Your task to perform on an android device: open a bookmark in the chrome app Image 0: 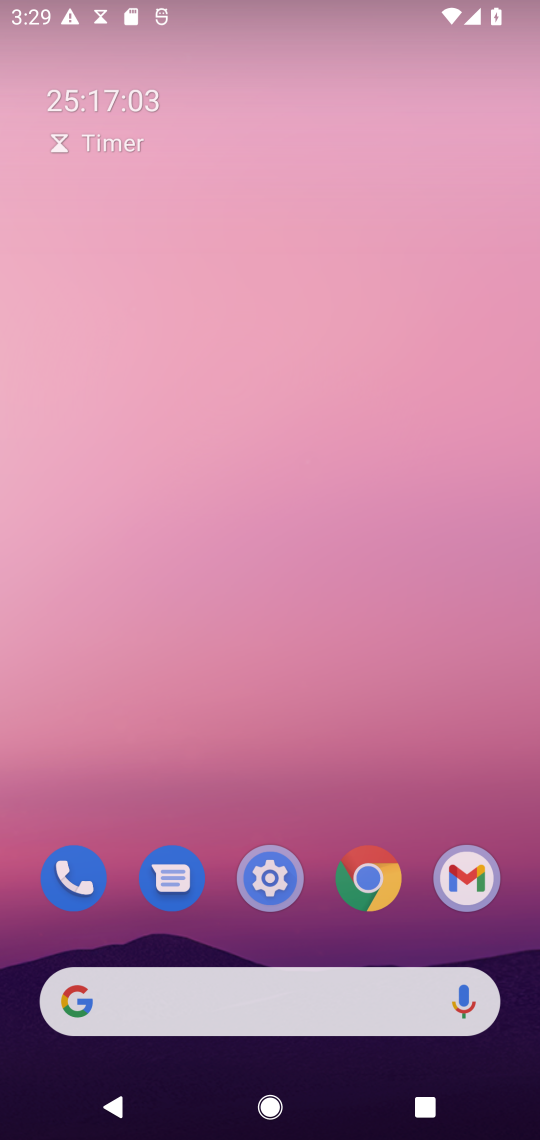
Step 0: click (408, 161)
Your task to perform on an android device: open a bookmark in the chrome app Image 1: 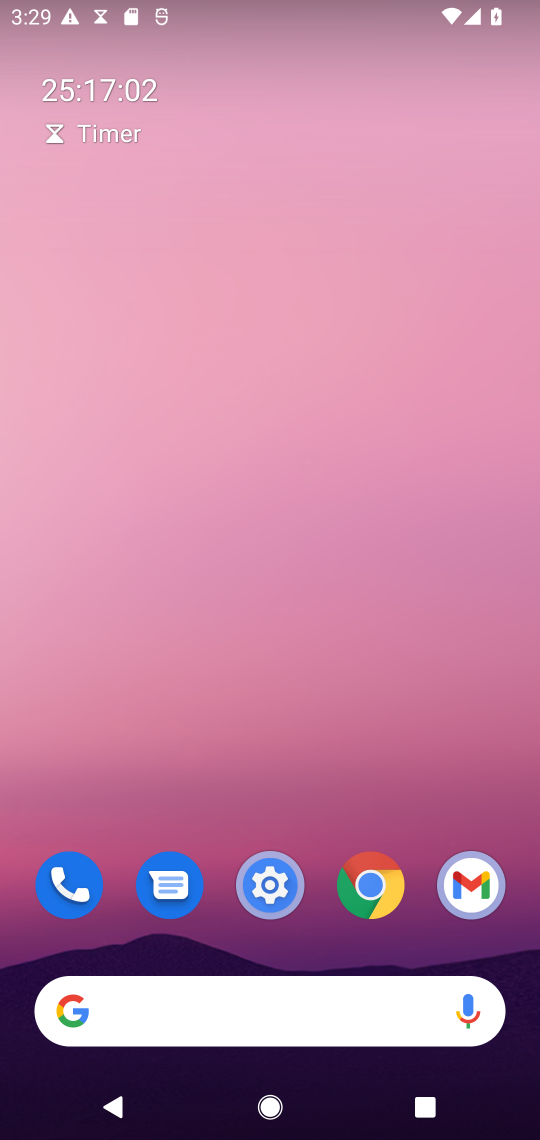
Step 1: press home button
Your task to perform on an android device: open a bookmark in the chrome app Image 2: 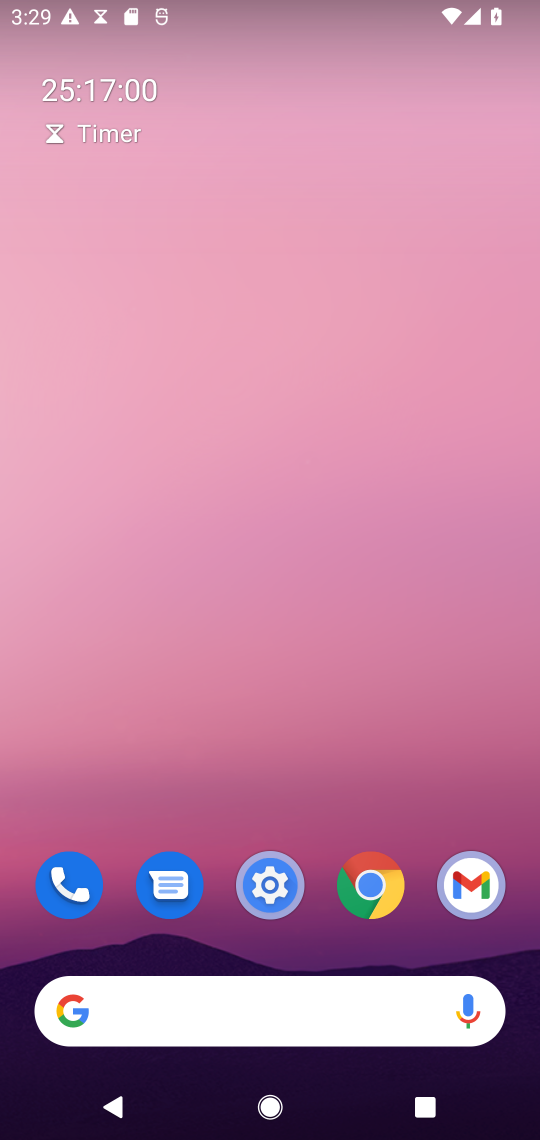
Step 2: drag from (362, 1137) to (527, 82)
Your task to perform on an android device: open a bookmark in the chrome app Image 3: 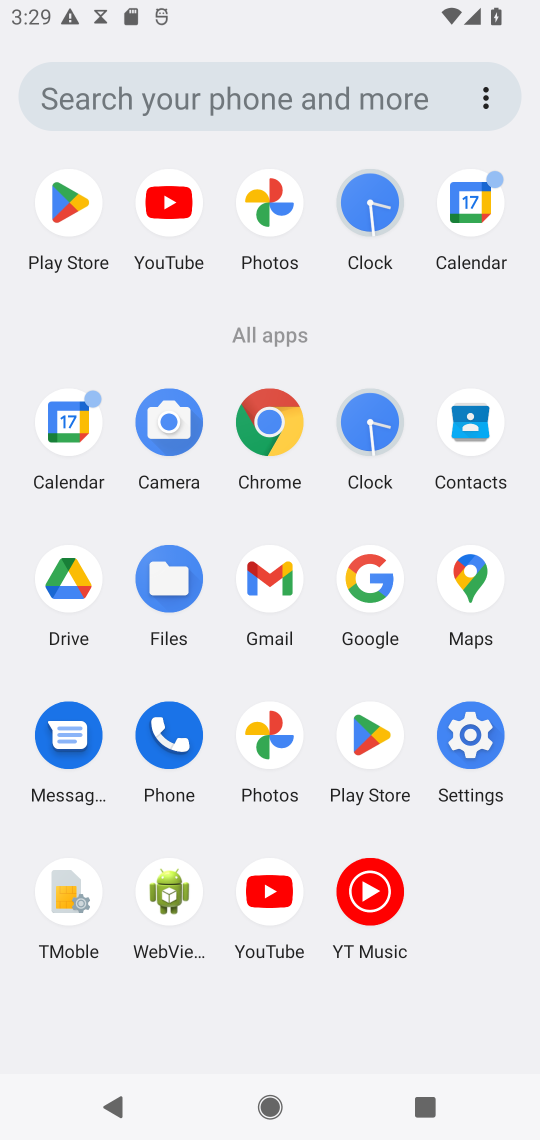
Step 3: click (287, 425)
Your task to perform on an android device: open a bookmark in the chrome app Image 4: 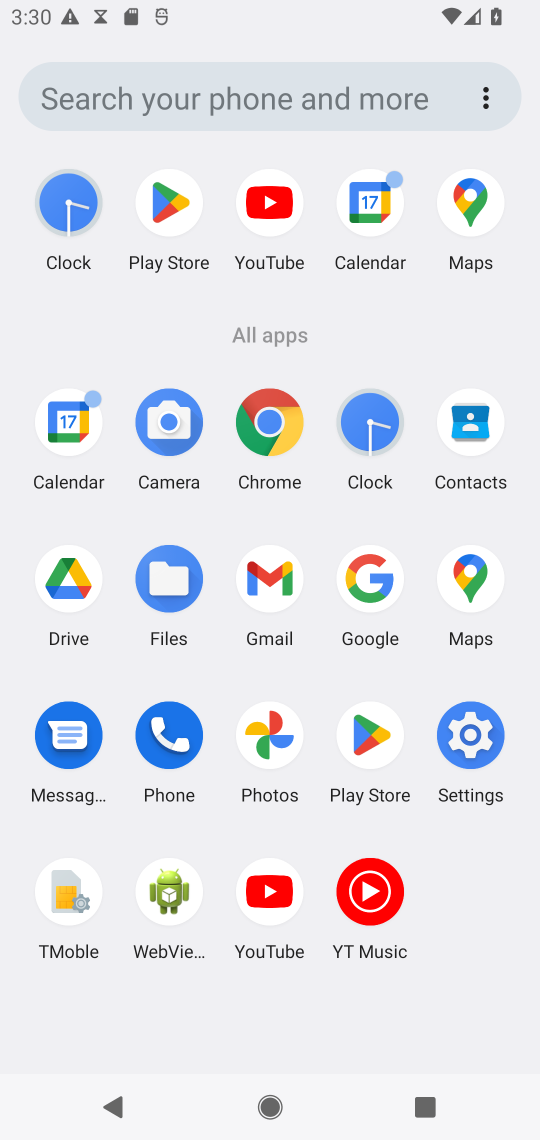
Step 4: click (285, 422)
Your task to perform on an android device: open a bookmark in the chrome app Image 5: 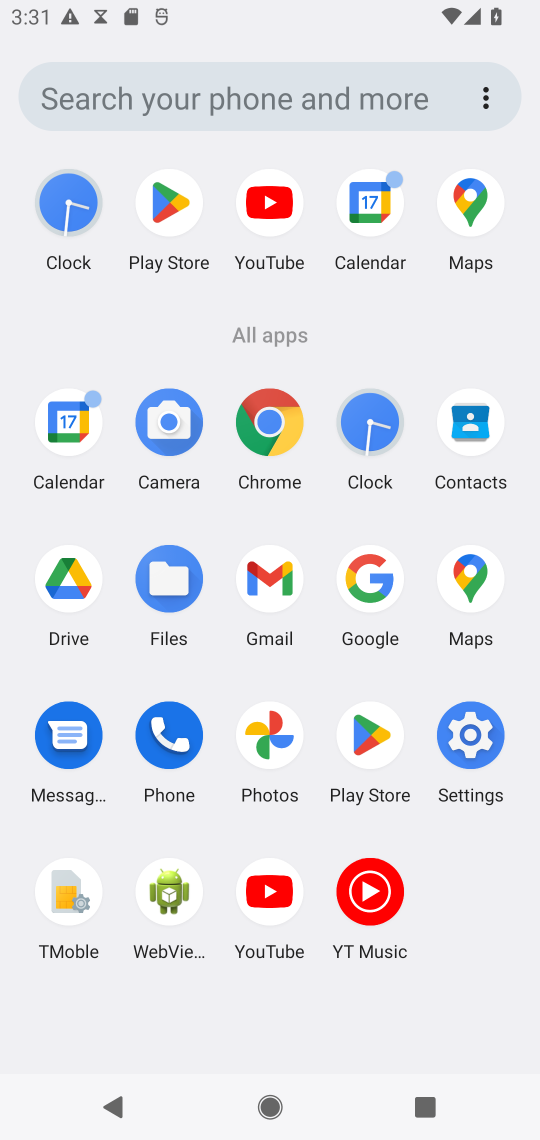
Step 5: task complete